Your task to perform on an android device: all mails in gmail Image 0: 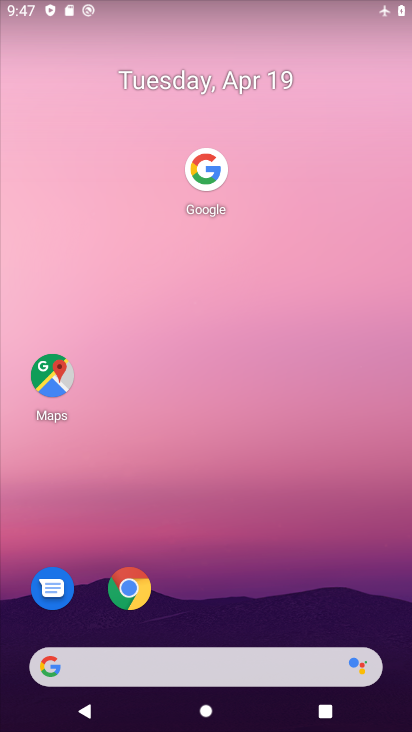
Step 0: drag from (217, 539) to (61, 0)
Your task to perform on an android device: all mails in gmail Image 1: 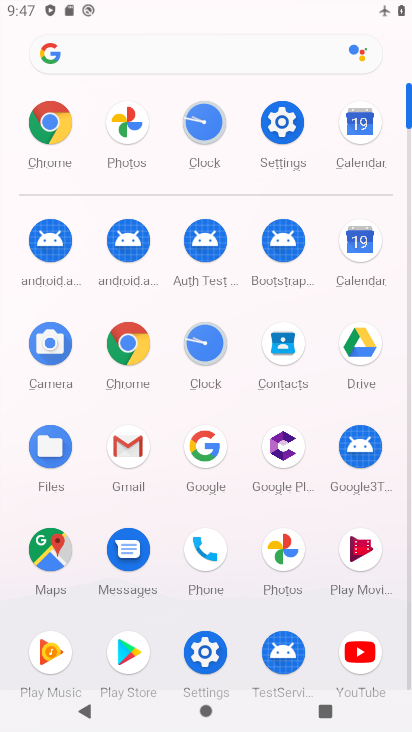
Step 1: click (122, 441)
Your task to perform on an android device: all mails in gmail Image 2: 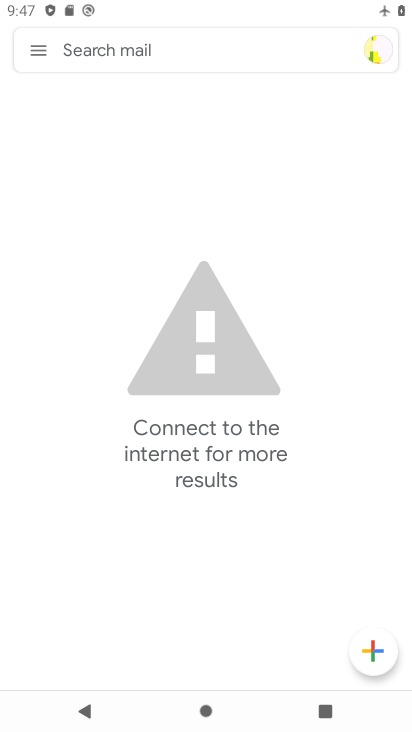
Step 2: click (36, 47)
Your task to perform on an android device: all mails in gmail Image 3: 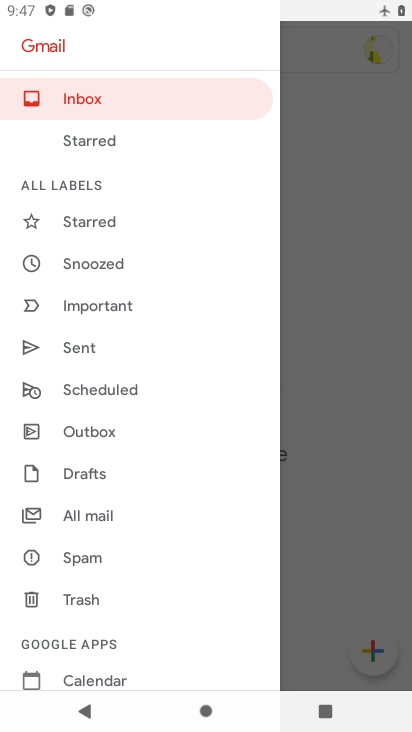
Step 3: click (97, 509)
Your task to perform on an android device: all mails in gmail Image 4: 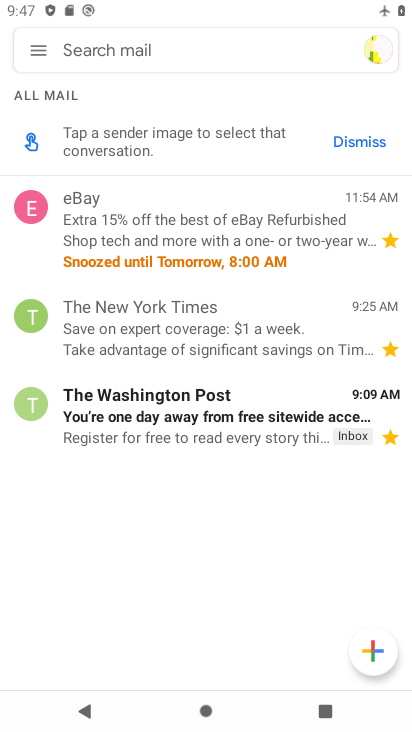
Step 4: task complete